Your task to perform on an android device: toggle sleep mode Image 0: 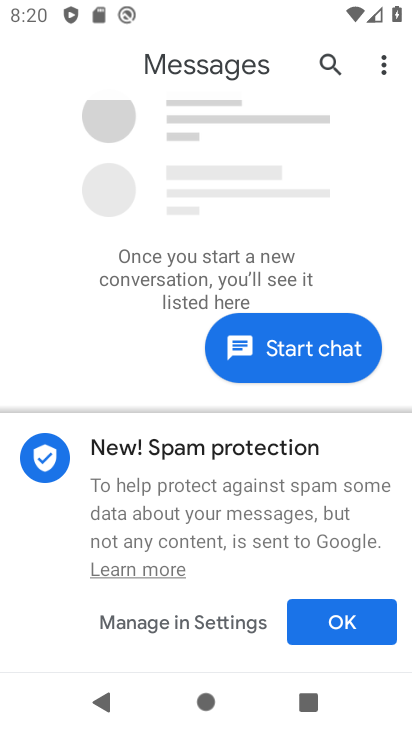
Step 0: press home button
Your task to perform on an android device: toggle sleep mode Image 1: 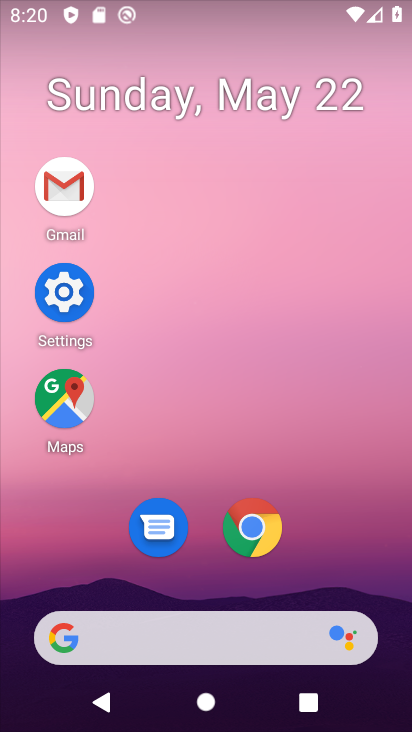
Step 1: click (78, 284)
Your task to perform on an android device: toggle sleep mode Image 2: 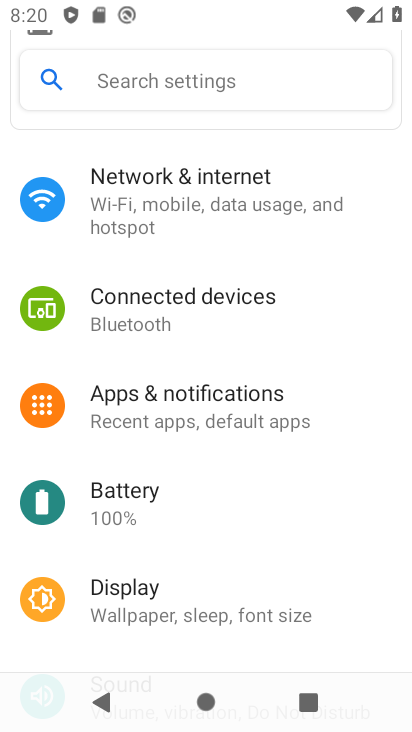
Step 2: click (234, 612)
Your task to perform on an android device: toggle sleep mode Image 3: 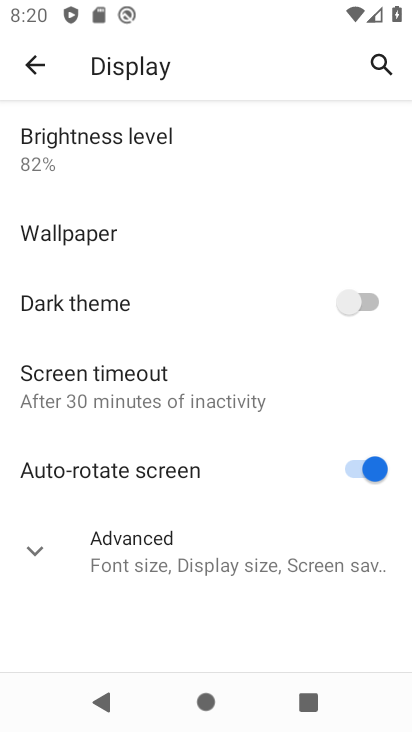
Step 3: click (144, 370)
Your task to perform on an android device: toggle sleep mode Image 4: 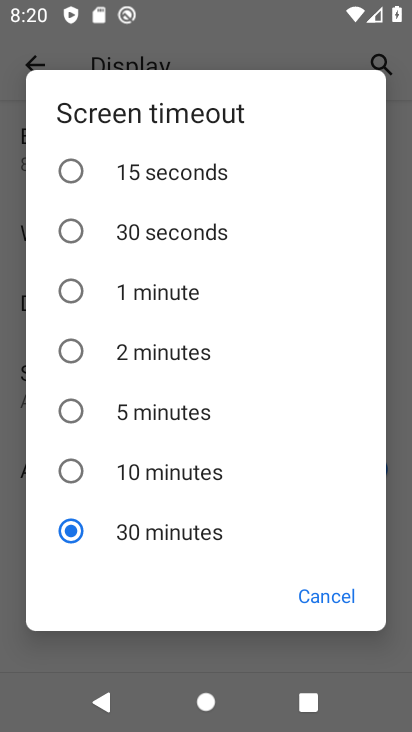
Step 4: click (117, 244)
Your task to perform on an android device: toggle sleep mode Image 5: 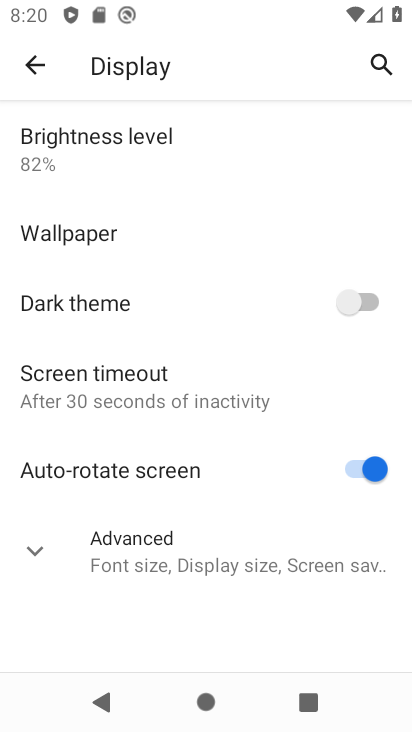
Step 5: task complete